Your task to perform on an android device: What's the latest news in astronomy? Image 0: 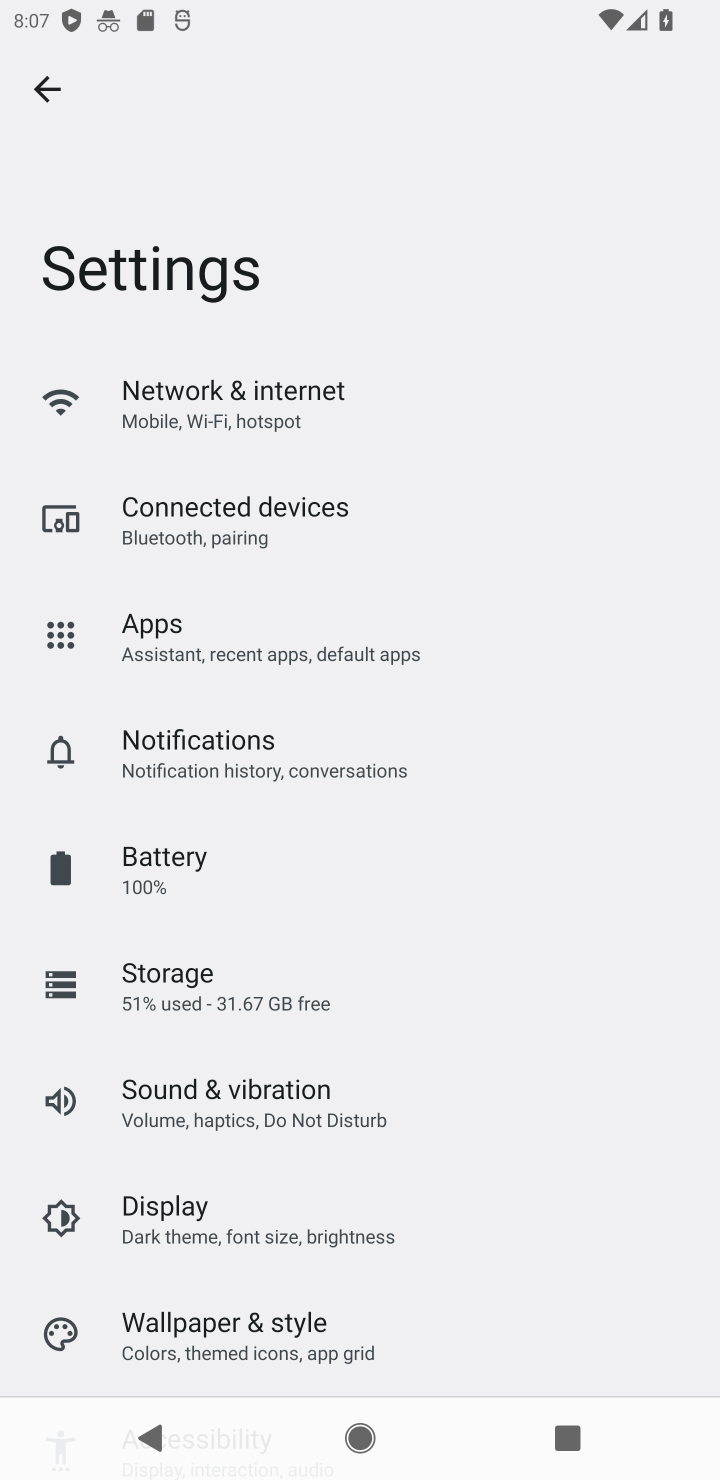
Step 0: press home button
Your task to perform on an android device: What's the latest news in astronomy? Image 1: 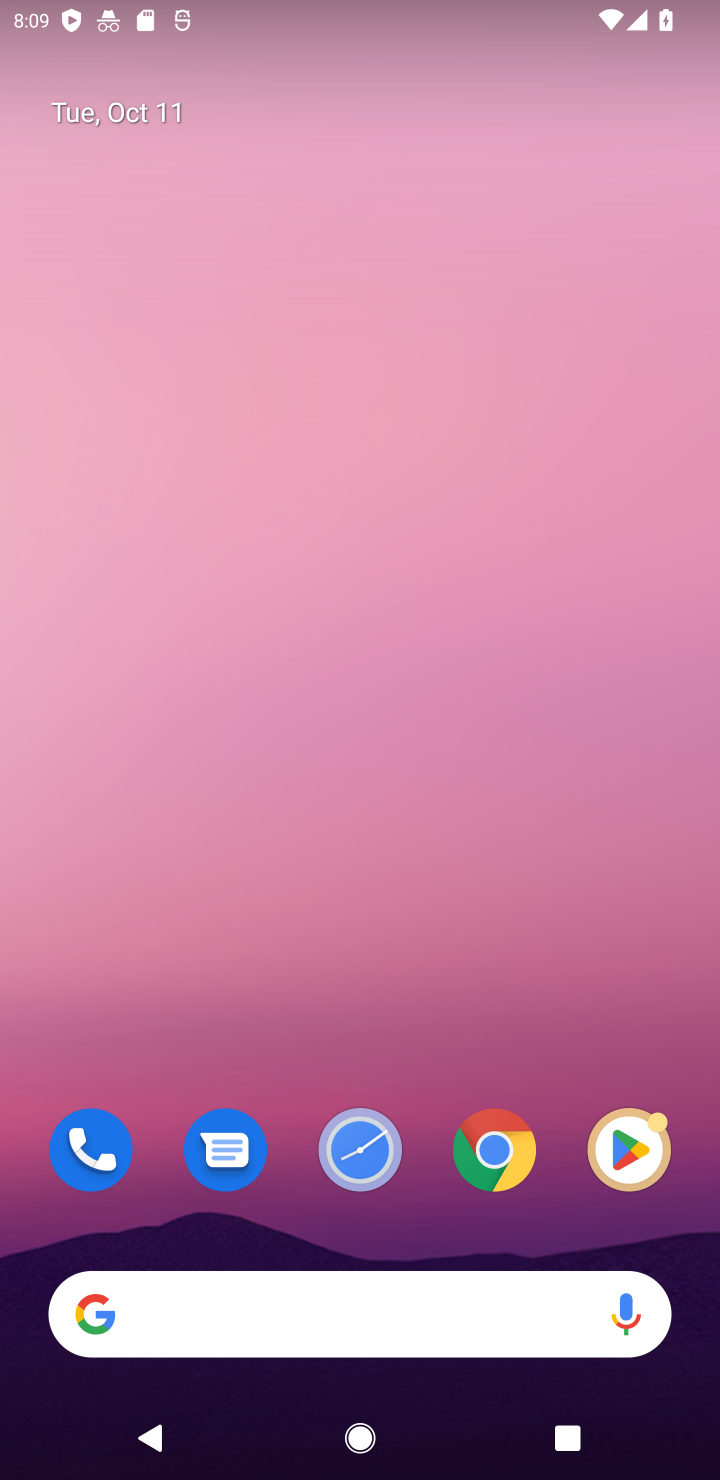
Step 1: click (501, 1156)
Your task to perform on an android device: What's the latest news in astronomy? Image 2: 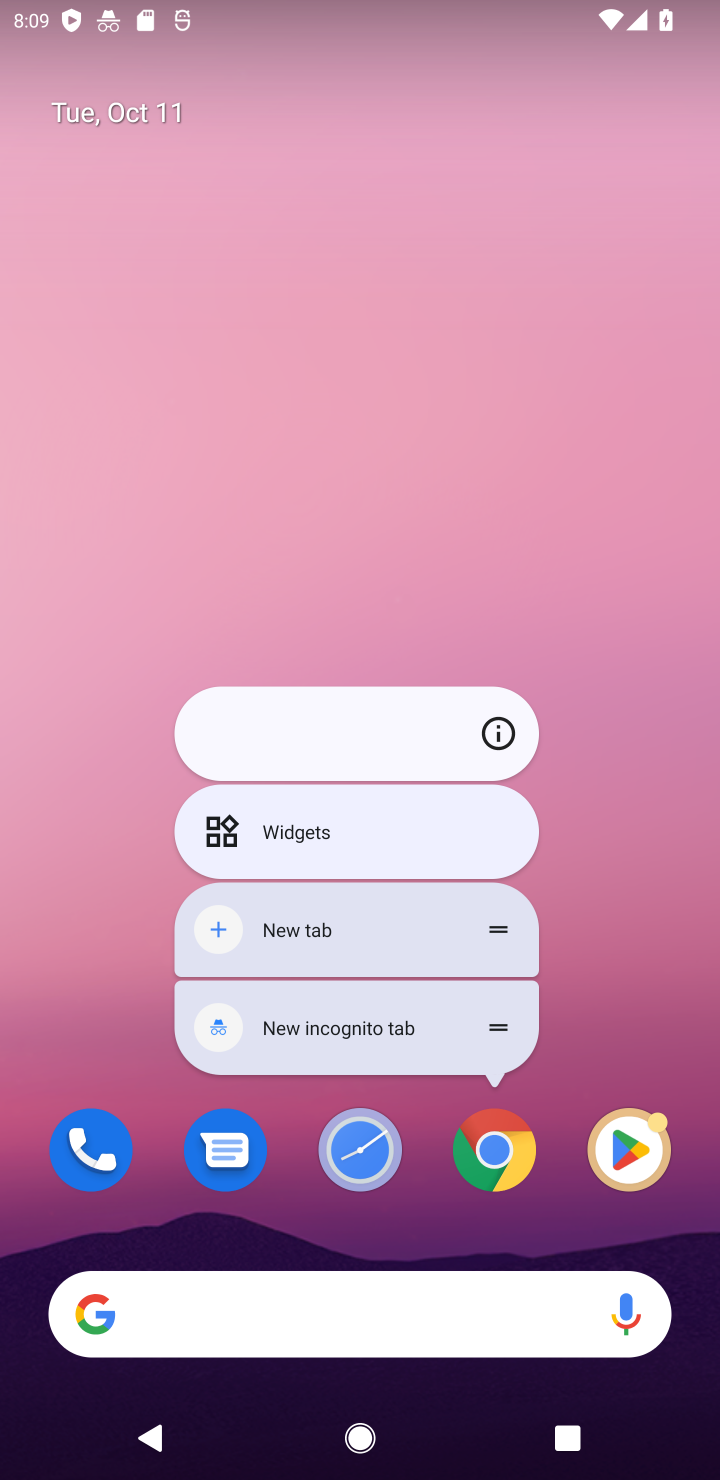
Step 2: click (494, 1156)
Your task to perform on an android device: What's the latest news in astronomy? Image 3: 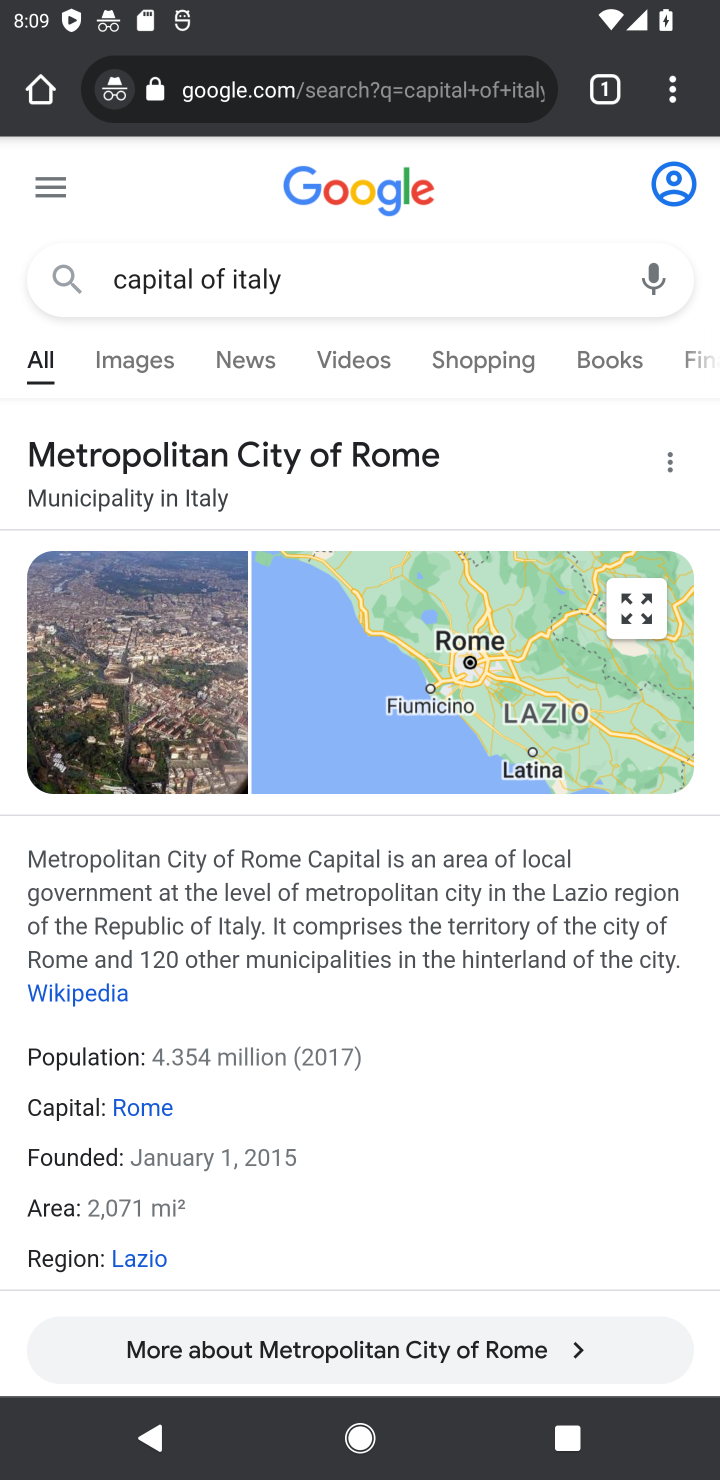
Step 3: click (322, 283)
Your task to perform on an android device: What's the latest news in astronomy? Image 4: 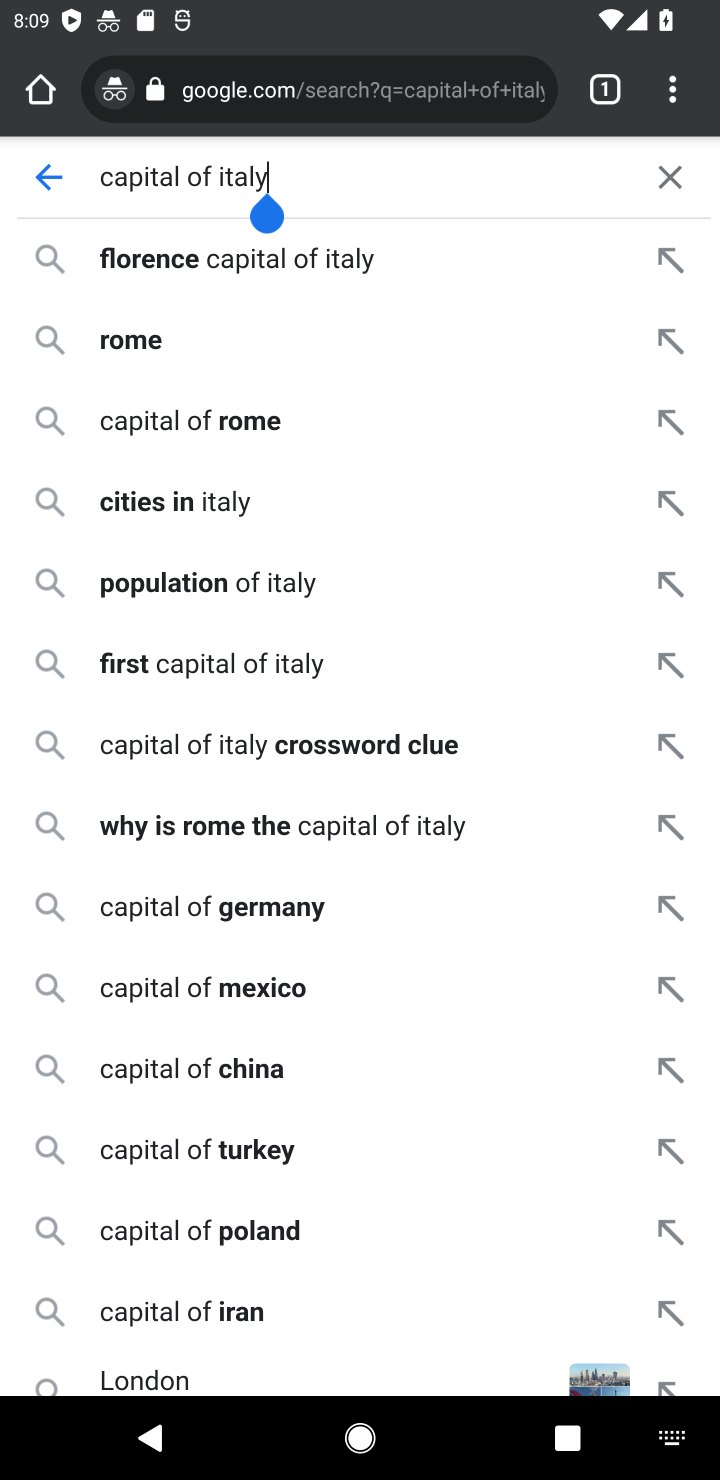
Step 4: click (676, 168)
Your task to perform on an android device: What's the latest news in astronomy? Image 5: 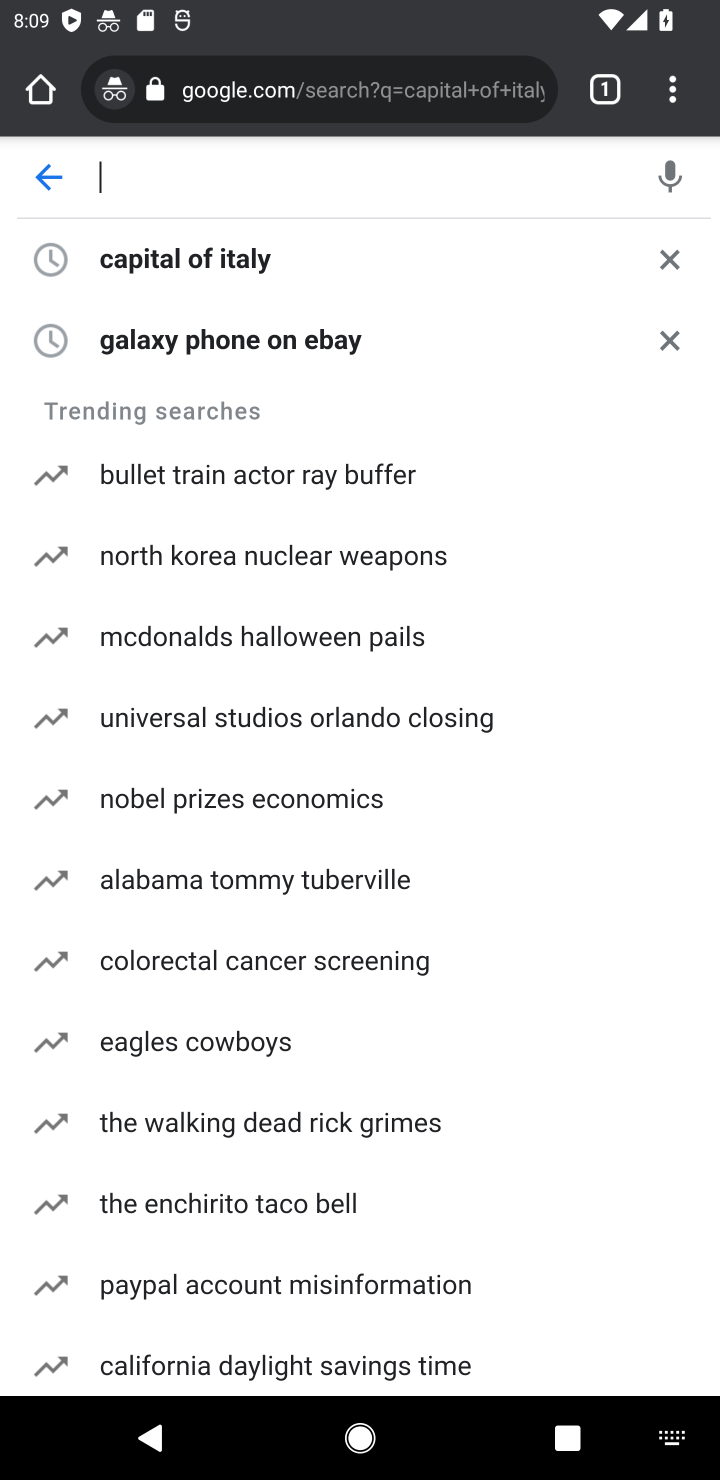
Step 5: click (210, 188)
Your task to perform on an android device: What's the latest news in astronomy? Image 6: 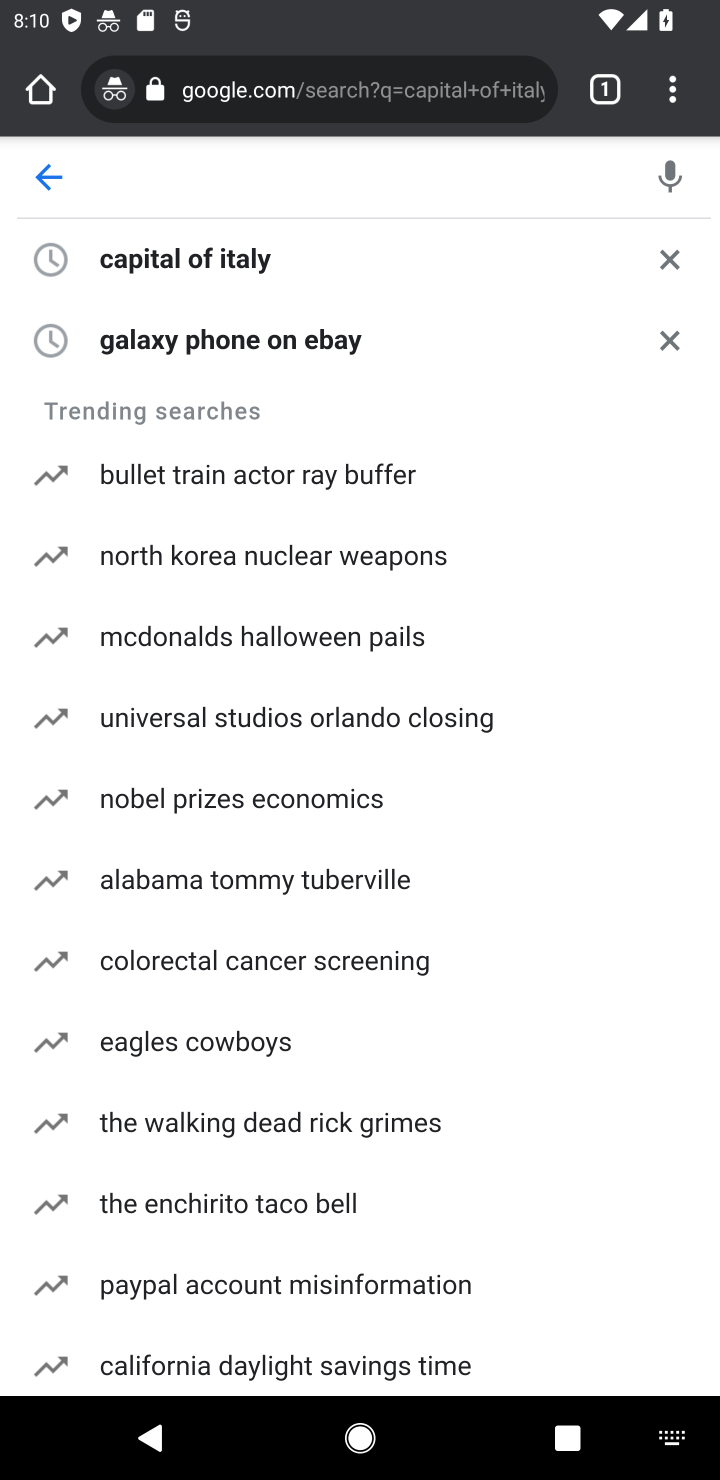
Step 6: type "news in astronomy"
Your task to perform on an android device: What's the latest news in astronomy? Image 7: 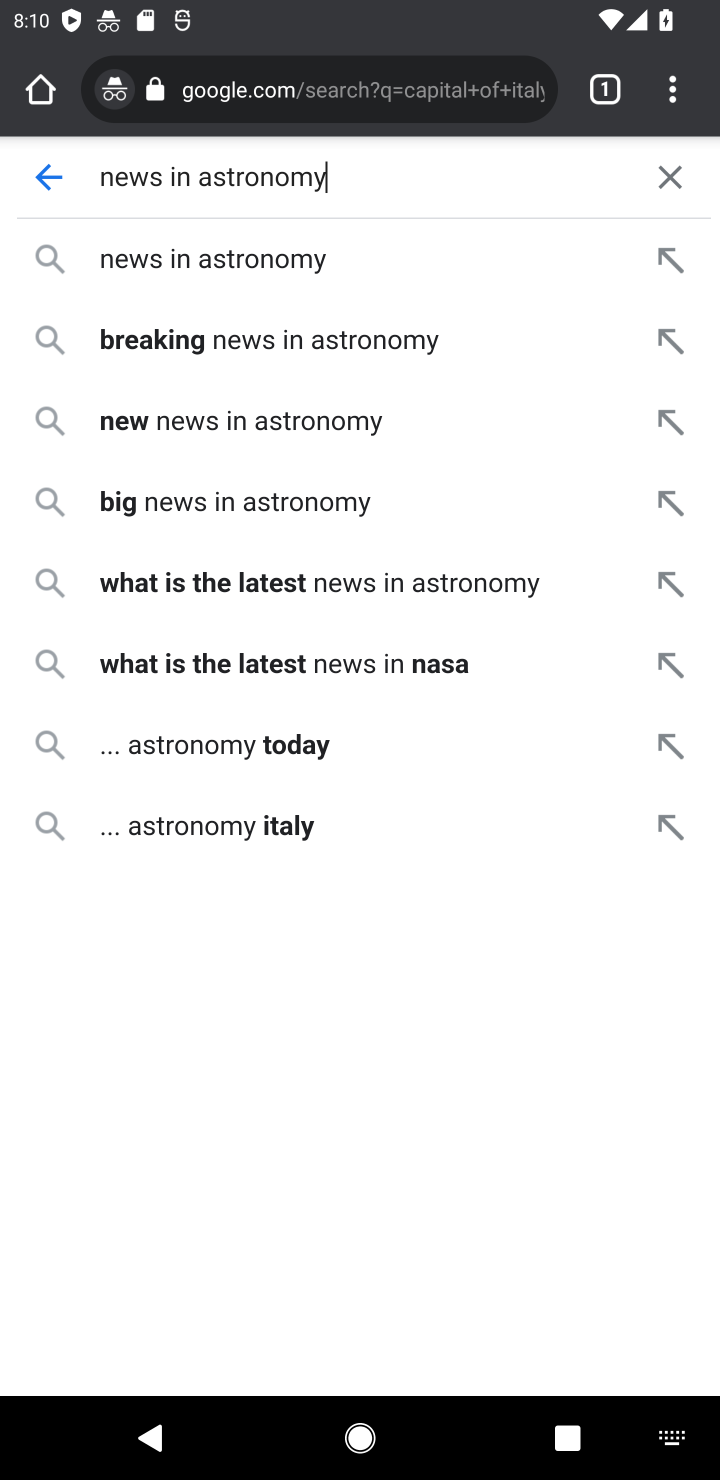
Step 7: click (219, 264)
Your task to perform on an android device: What's the latest news in astronomy? Image 8: 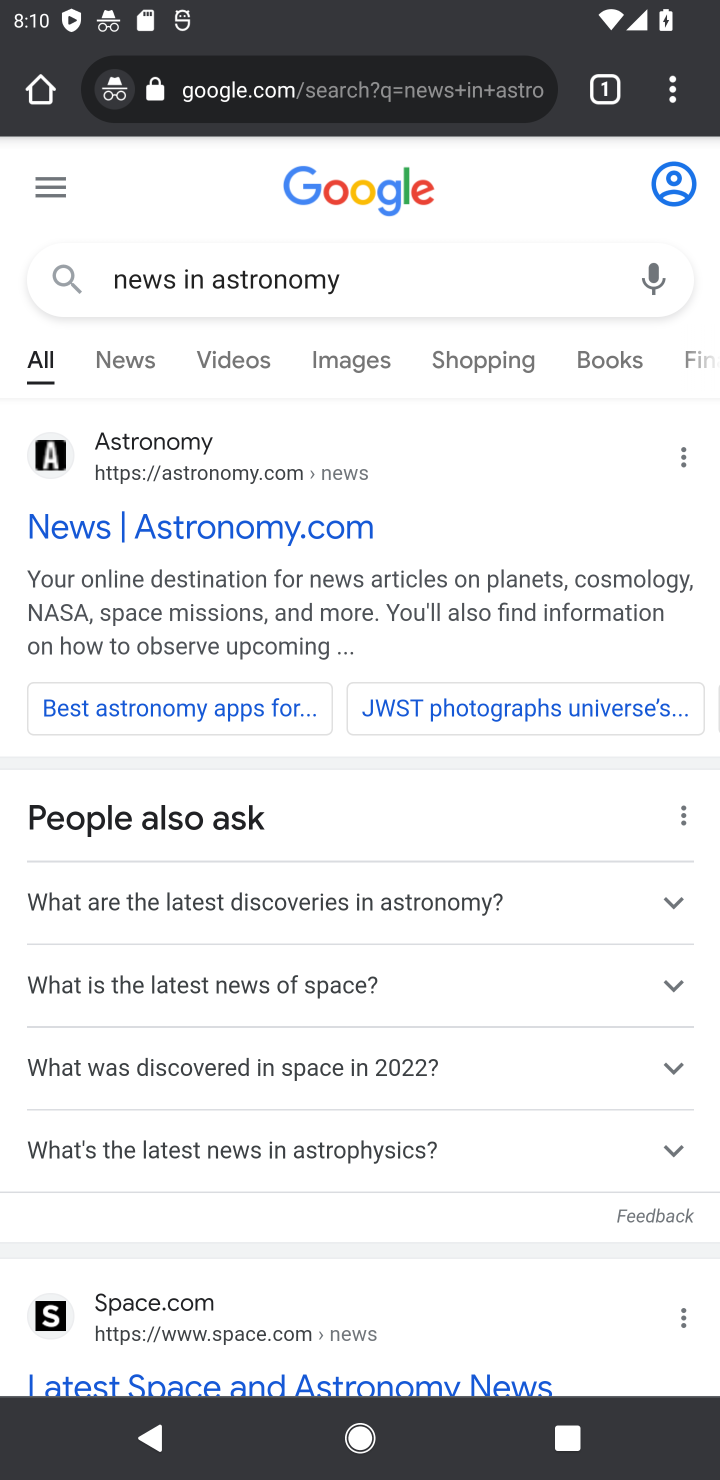
Step 8: click (115, 361)
Your task to perform on an android device: What's the latest news in astronomy? Image 9: 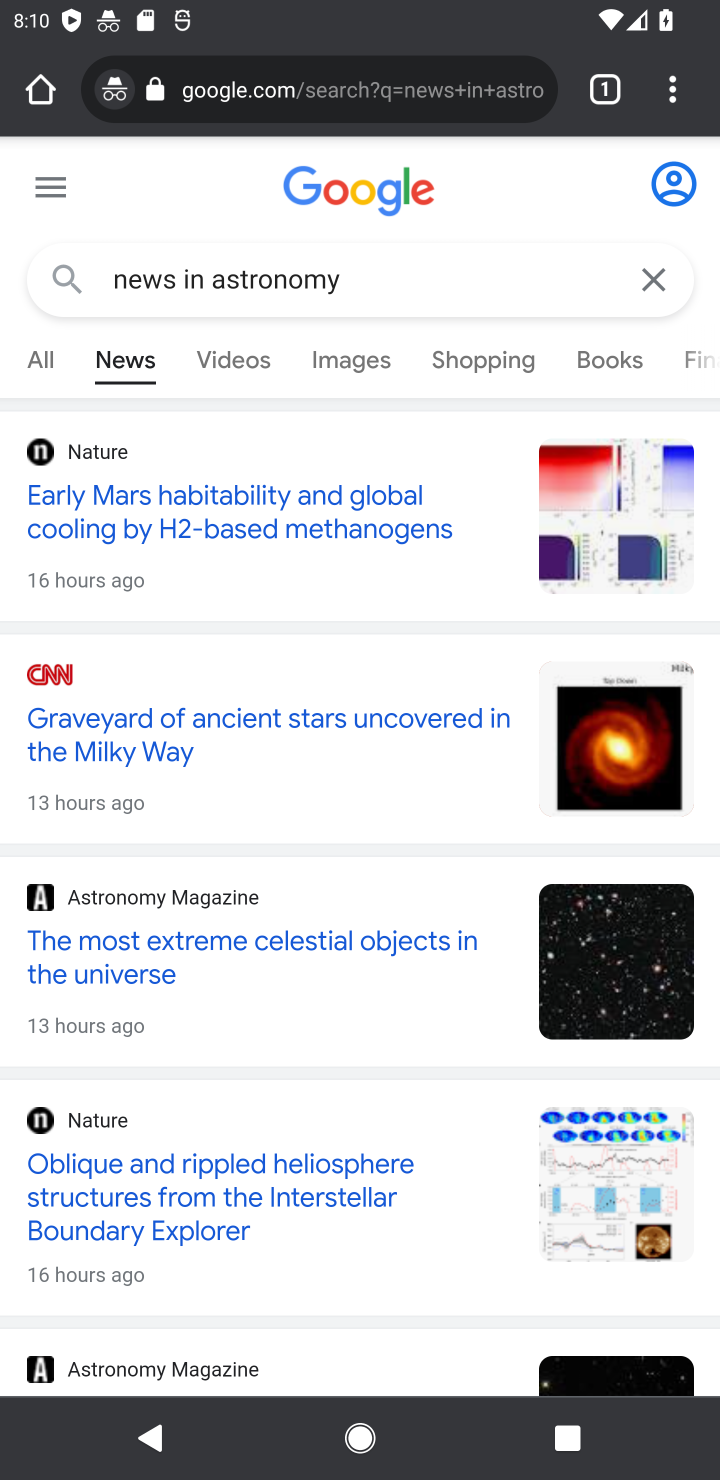
Step 9: drag from (261, 1164) to (265, 652)
Your task to perform on an android device: What's the latest news in astronomy? Image 10: 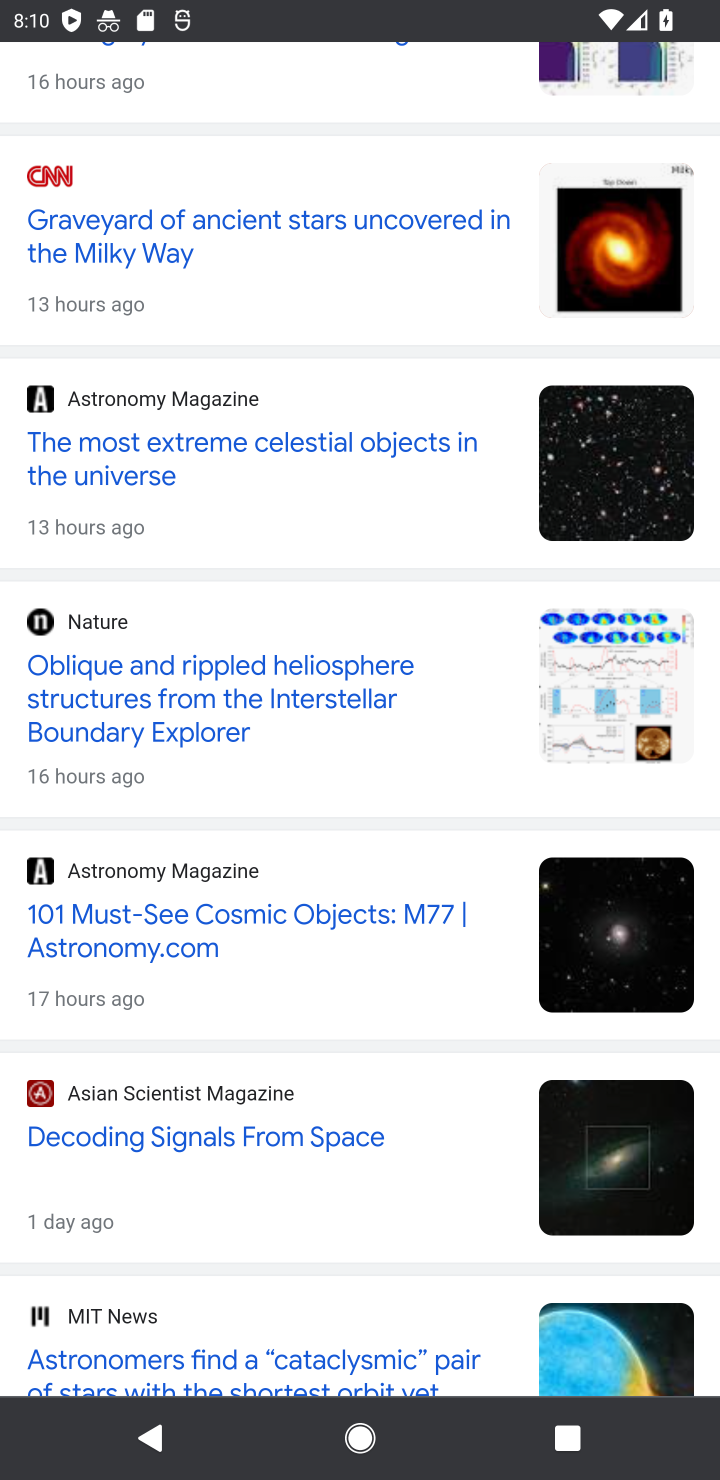
Step 10: click (168, 936)
Your task to perform on an android device: What's the latest news in astronomy? Image 11: 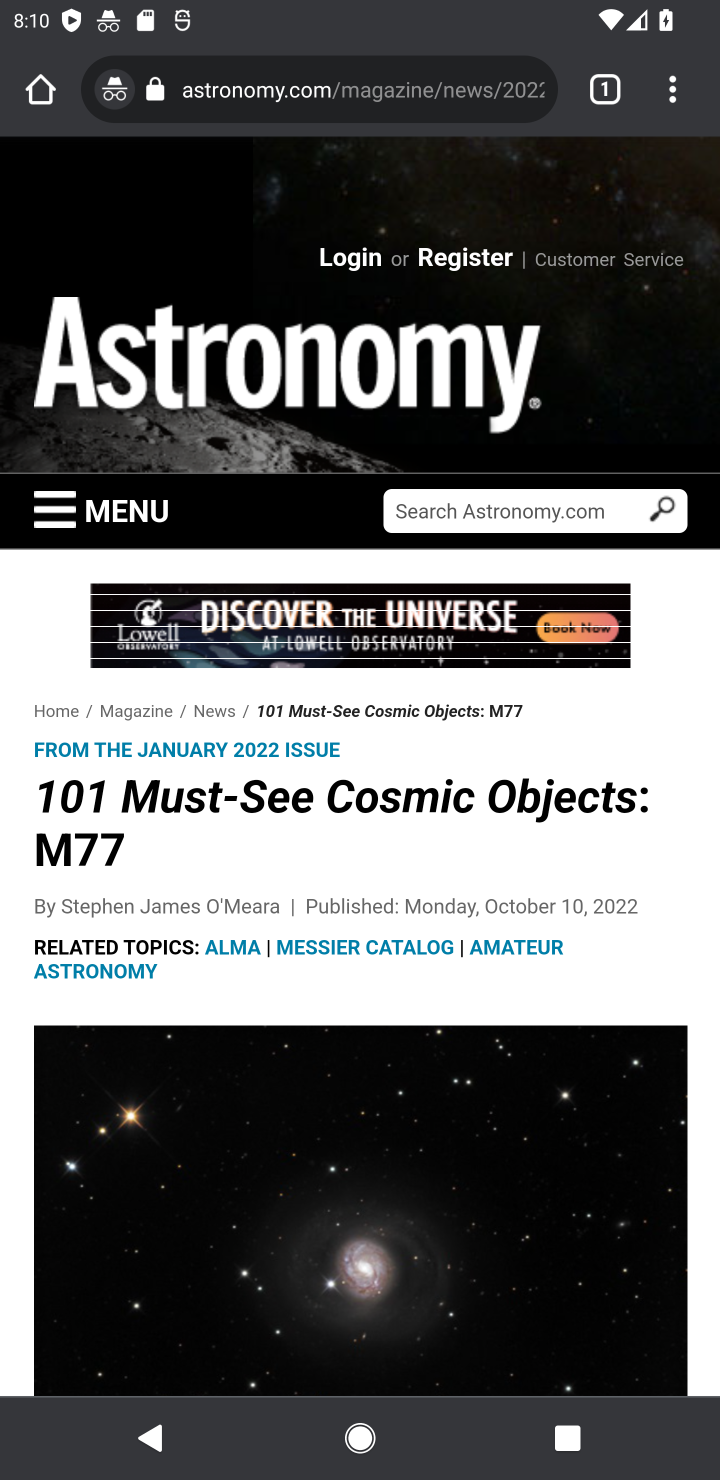
Step 11: task complete